Your task to perform on an android device: check storage Image 0: 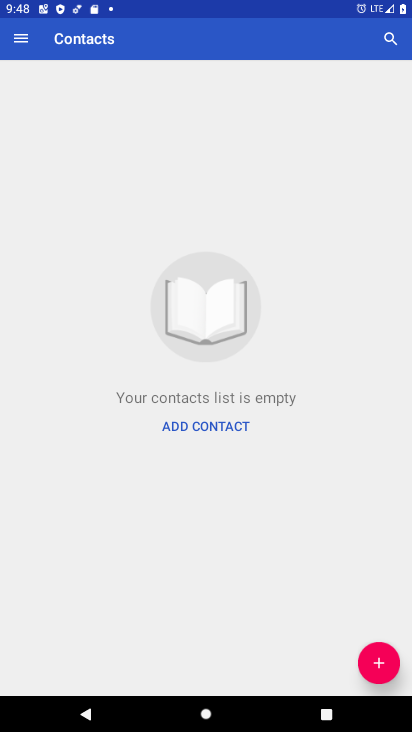
Step 0: drag from (374, 646) to (295, 80)
Your task to perform on an android device: check storage Image 1: 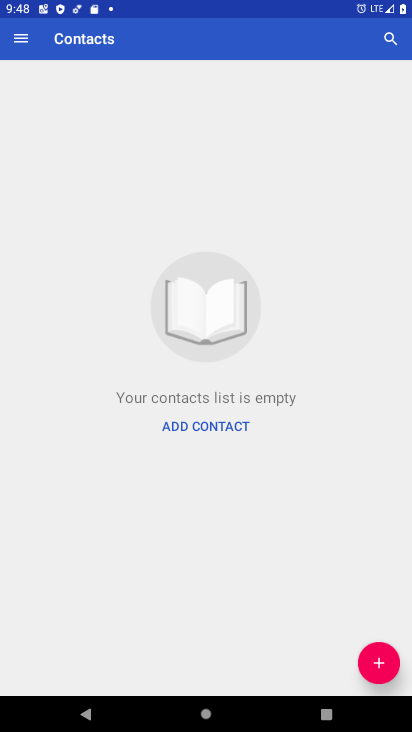
Step 1: press home button
Your task to perform on an android device: check storage Image 2: 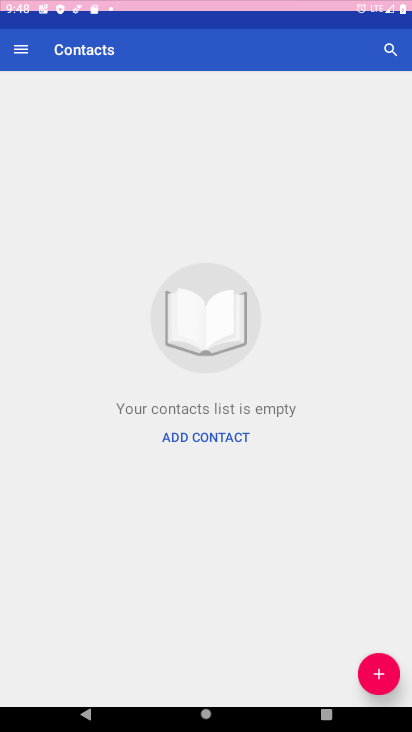
Step 2: drag from (335, 701) to (248, 46)
Your task to perform on an android device: check storage Image 3: 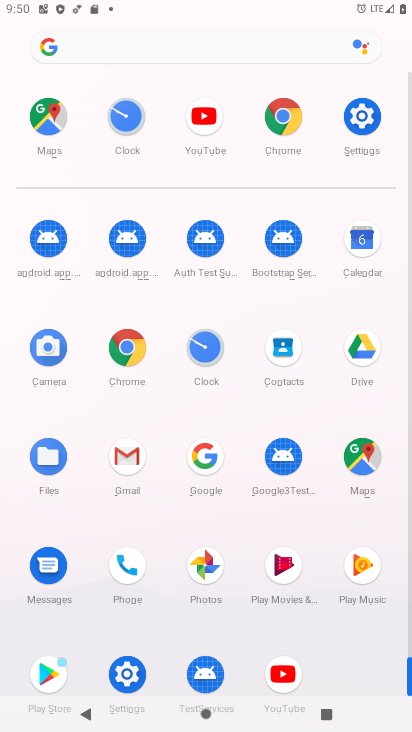
Step 3: click (363, 126)
Your task to perform on an android device: check storage Image 4: 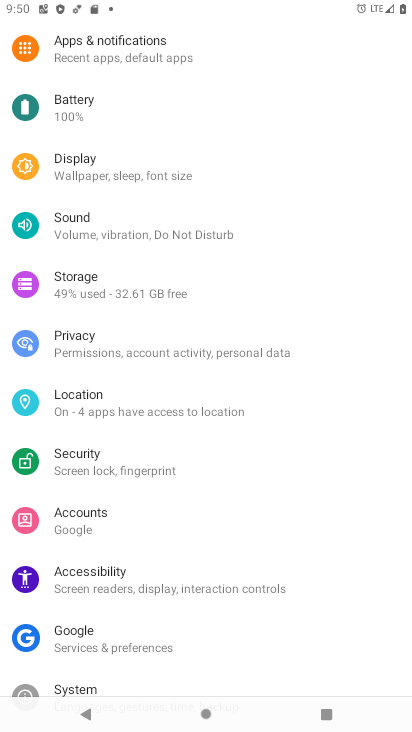
Step 4: click (122, 279)
Your task to perform on an android device: check storage Image 5: 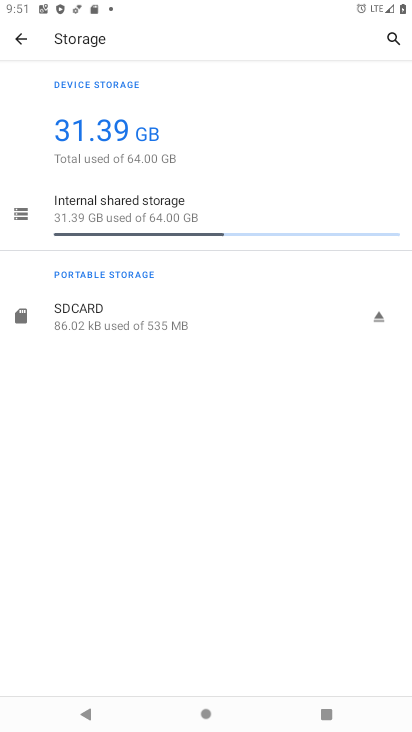
Step 5: click (129, 198)
Your task to perform on an android device: check storage Image 6: 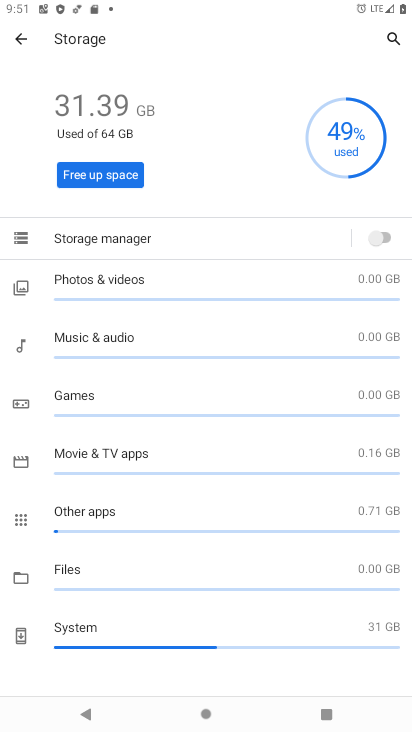
Step 6: task complete